Your task to perform on an android device: turn on wifi Image 0: 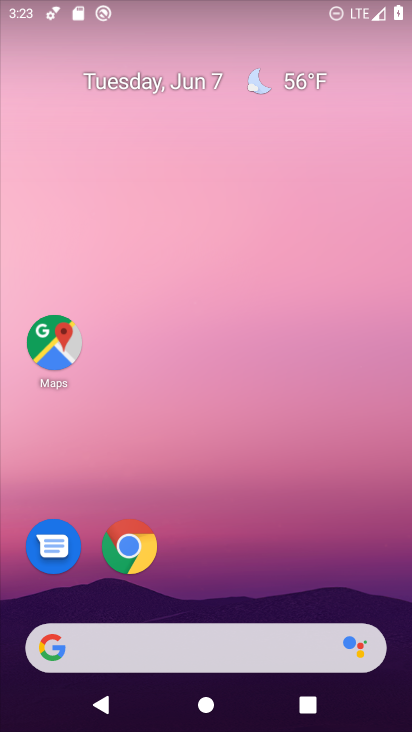
Step 0: drag from (278, 578) to (227, 4)
Your task to perform on an android device: turn on wifi Image 1: 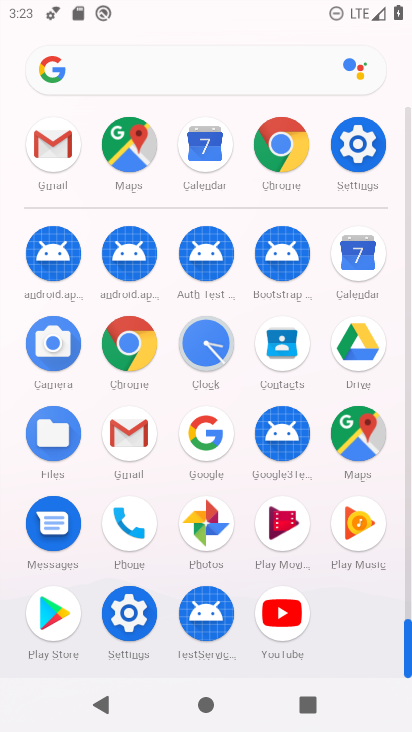
Step 1: click (130, 609)
Your task to perform on an android device: turn on wifi Image 2: 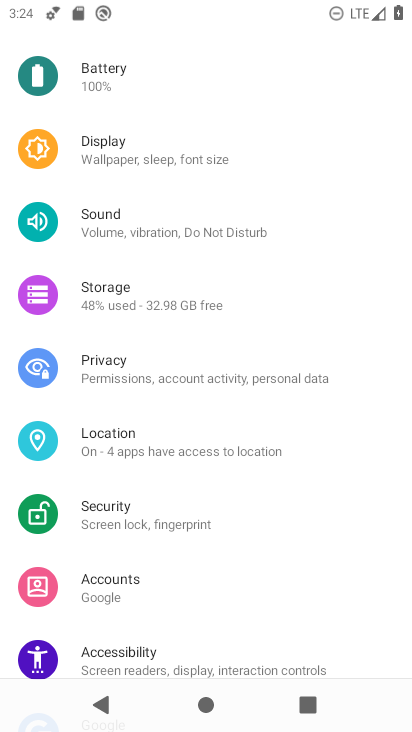
Step 2: drag from (245, 172) to (237, 595)
Your task to perform on an android device: turn on wifi Image 3: 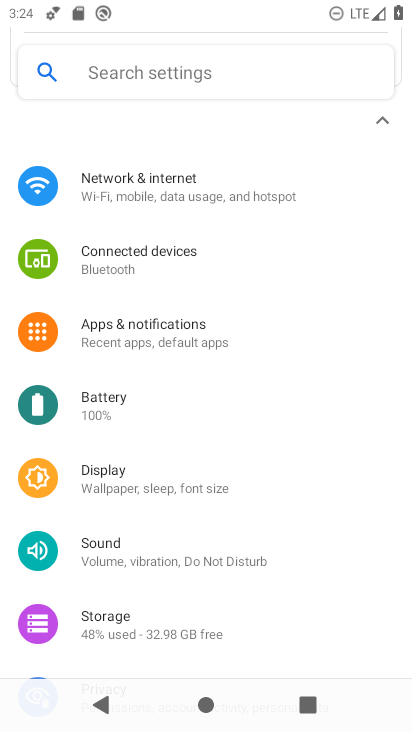
Step 3: drag from (245, 250) to (248, 635)
Your task to perform on an android device: turn on wifi Image 4: 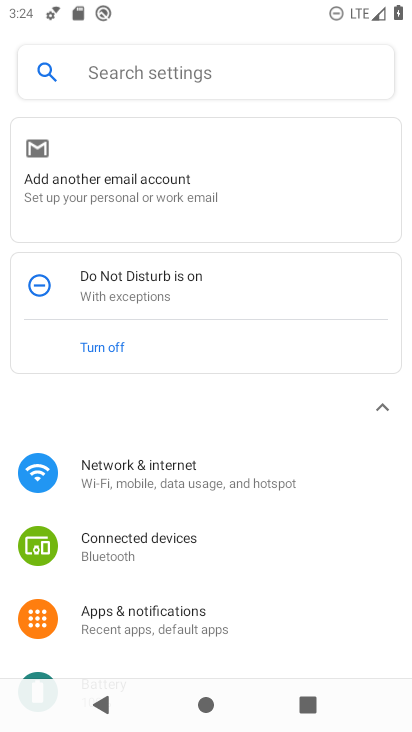
Step 4: click (189, 484)
Your task to perform on an android device: turn on wifi Image 5: 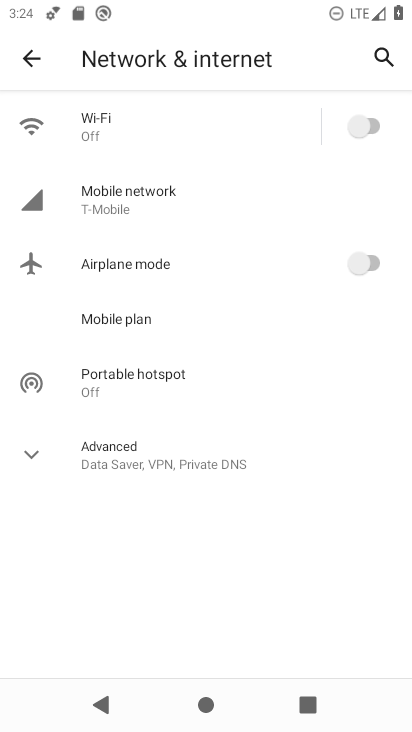
Step 5: click (368, 116)
Your task to perform on an android device: turn on wifi Image 6: 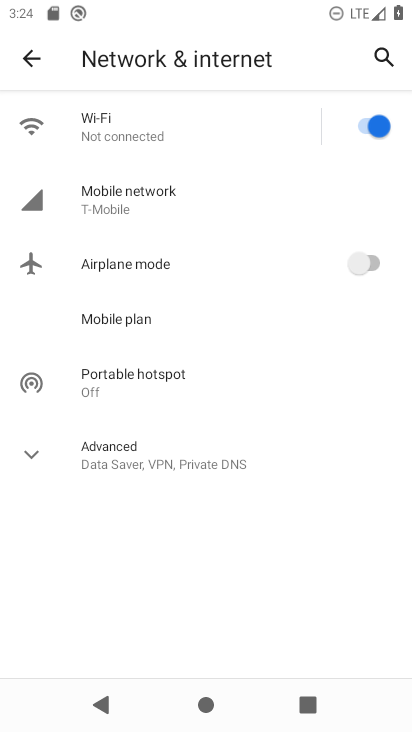
Step 6: click (24, 456)
Your task to perform on an android device: turn on wifi Image 7: 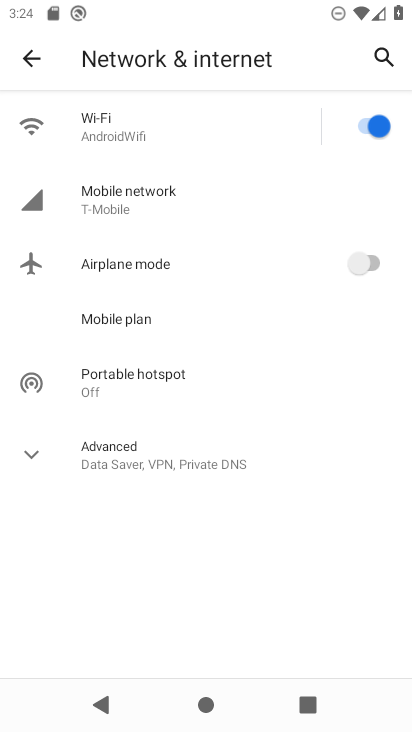
Step 7: click (27, 464)
Your task to perform on an android device: turn on wifi Image 8: 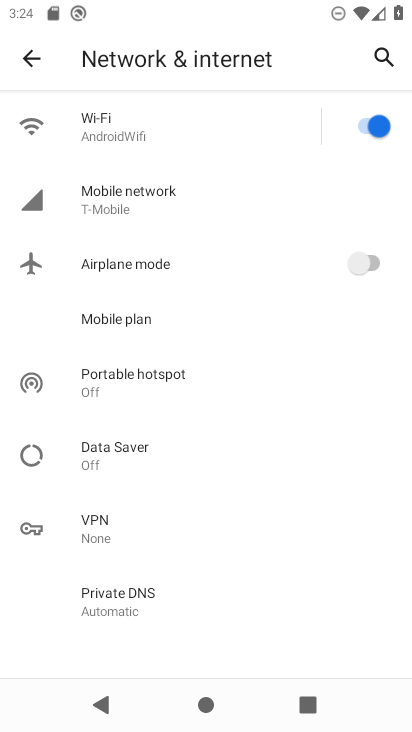
Step 8: task complete